Your task to perform on an android device: Search for seafood restaurants on Google Maps Image 0: 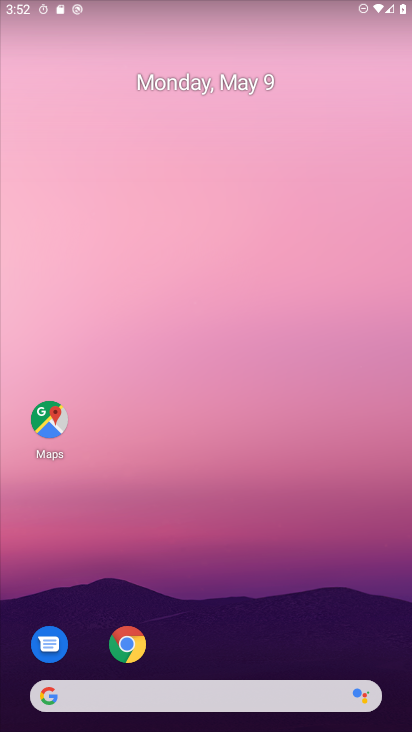
Step 0: click (39, 424)
Your task to perform on an android device: Search for seafood restaurants on Google Maps Image 1: 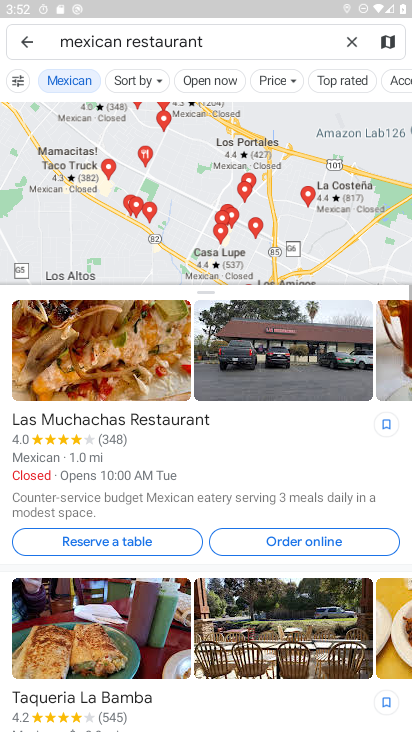
Step 1: click (31, 45)
Your task to perform on an android device: Search for seafood restaurants on Google Maps Image 2: 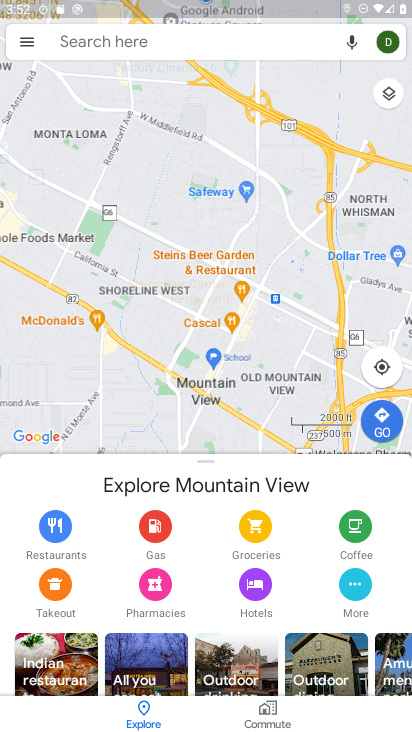
Step 2: click (137, 42)
Your task to perform on an android device: Search for seafood restaurants on Google Maps Image 3: 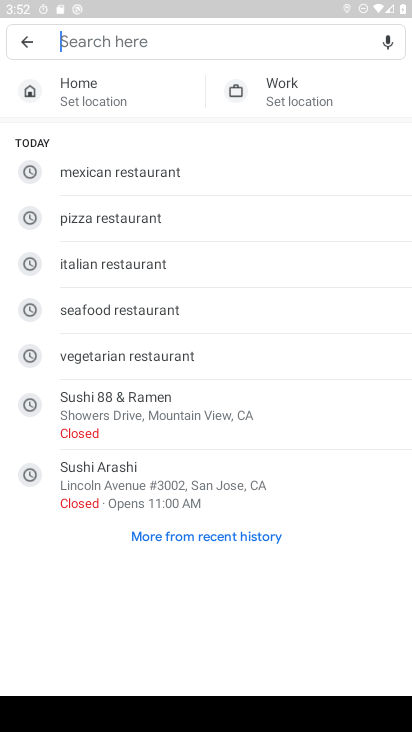
Step 3: click (99, 318)
Your task to perform on an android device: Search for seafood restaurants on Google Maps Image 4: 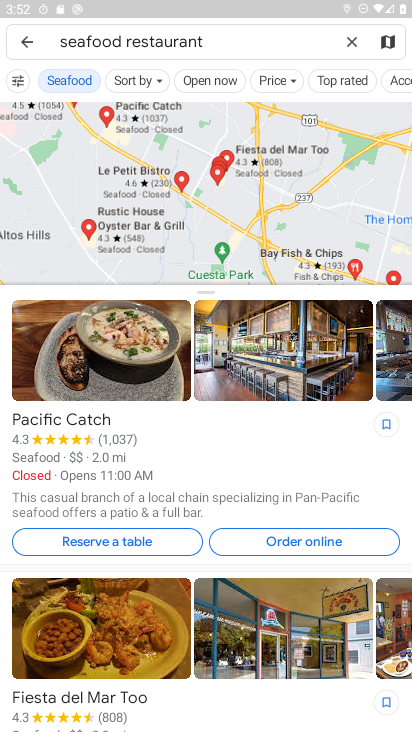
Step 4: task complete